Your task to perform on an android device: Go to display settings Image 0: 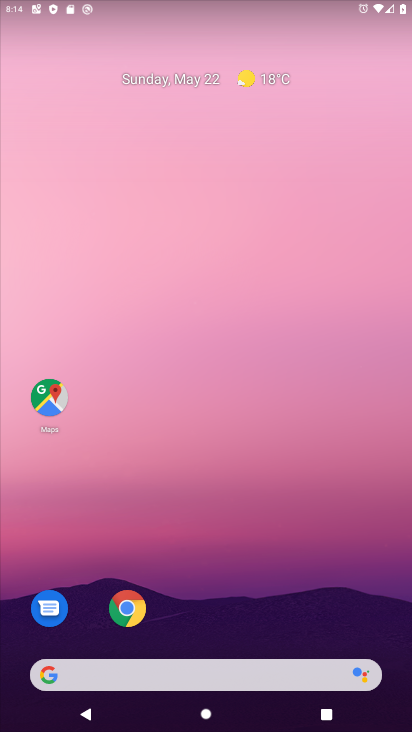
Step 0: drag from (235, 721) to (241, 74)
Your task to perform on an android device: Go to display settings Image 1: 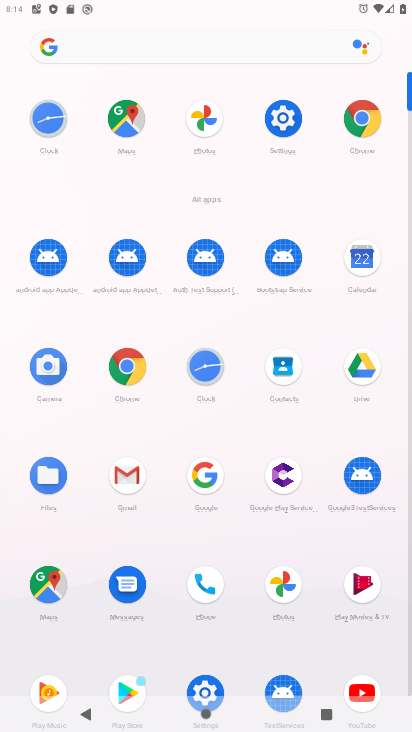
Step 1: click (279, 118)
Your task to perform on an android device: Go to display settings Image 2: 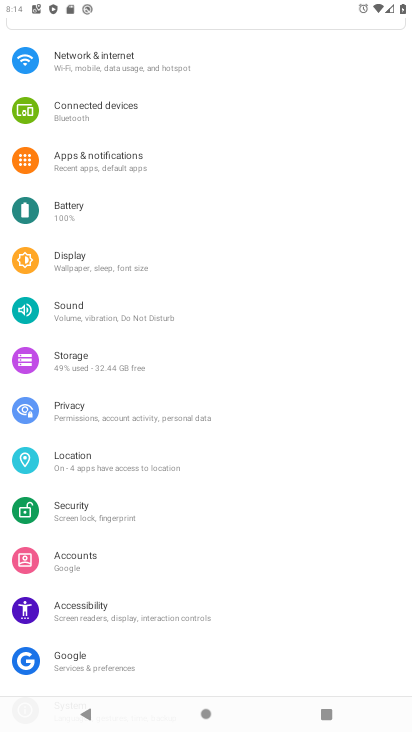
Step 2: click (78, 258)
Your task to perform on an android device: Go to display settings Image 3: 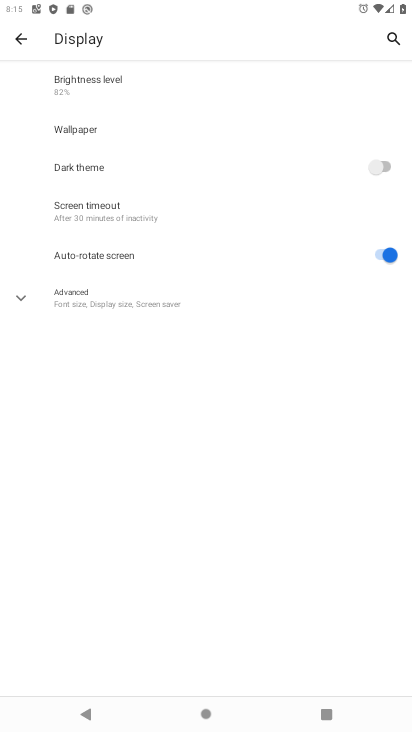
Step 3: task complete